Your task to perform on an android device: toggle notifications settings in the gmail app Image 0: 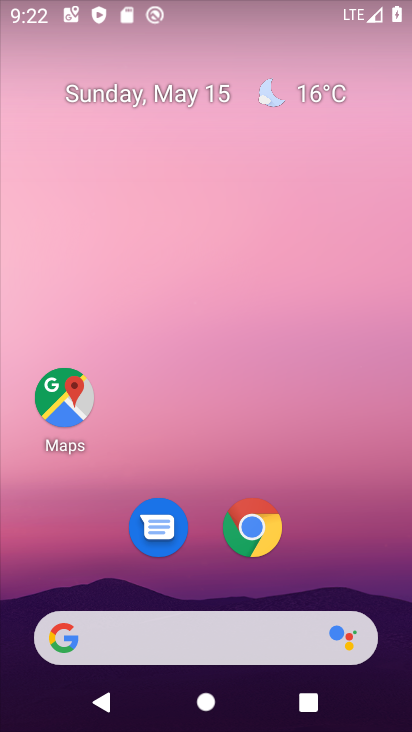
Step 0: drag from (364, 592) to (351, 17)
Your task to perform on an android device: toggle notifications settings in the gmail app Image 1: 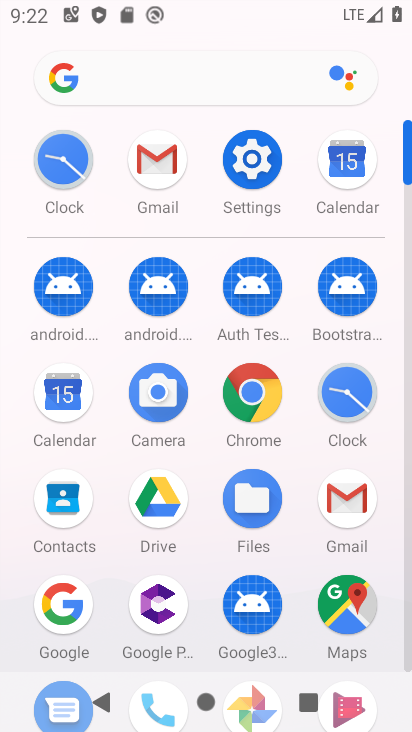
Step 1: click (174, 175)
Your task to perform on an android device: toggle notifications settings in the gmail app Image 2: 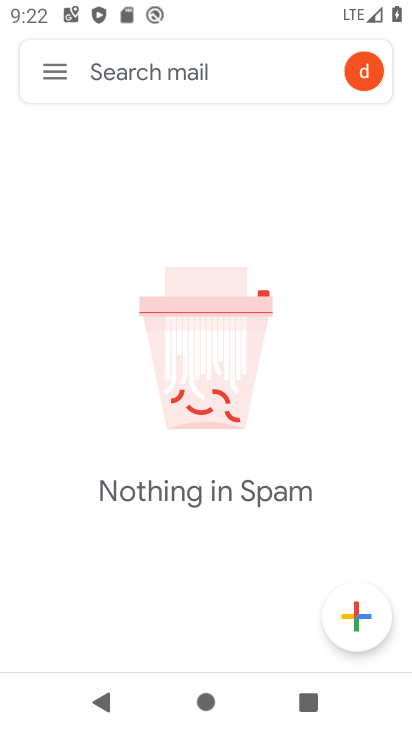
Step 2: click (51, 75)
Your task to perform on an android device: toggle notifications settings in the gmail app Image 3: 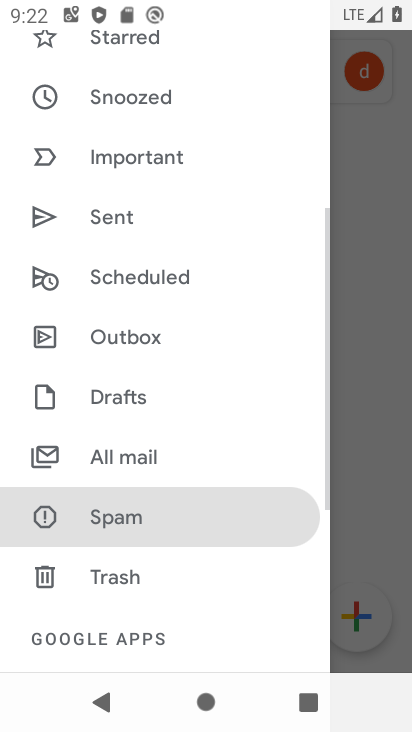
Step 3: drag from (211, 584) to (208, 82)
Your task to perform on an android device: toggle notifications settings in the gmail app Image 4: 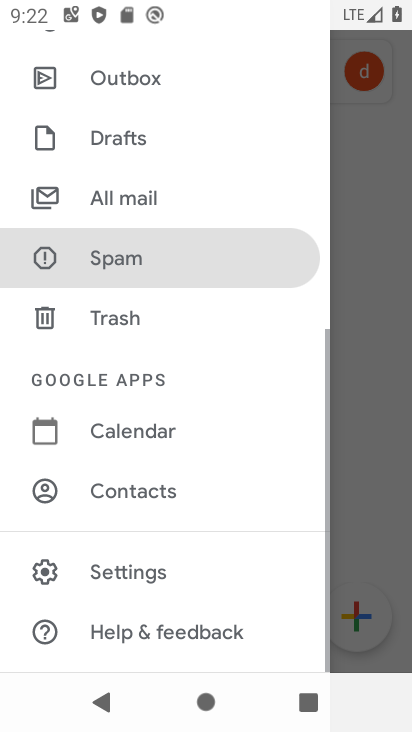
Step 4: click (128, 572)
Your task to perform on an android device: toggle notifications settings in the gmail app Image 5: 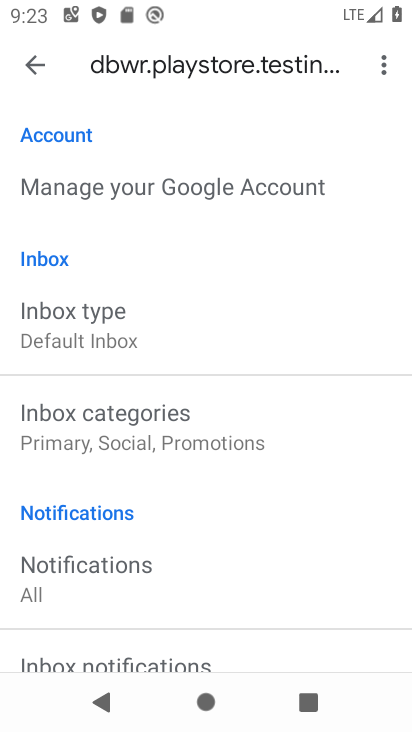
Step 5: click (207, 558)
Your task to perform on an android device: toggle notifications settings in the gmail app Image 6: 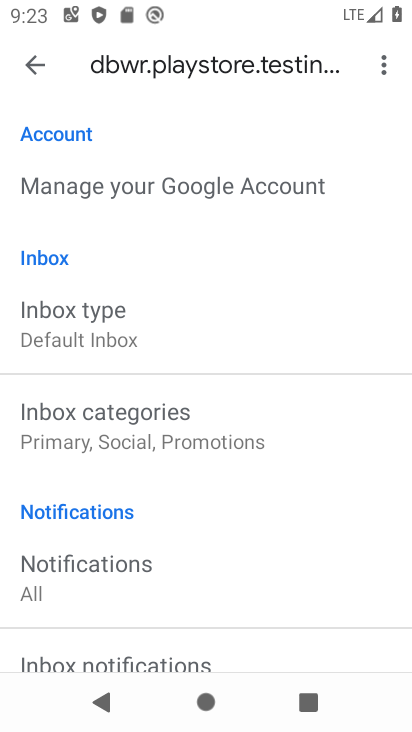
Step 6: click (28, 72)
Your task to perform on an android device: toggle notifications settings in the gmail app Image 7: 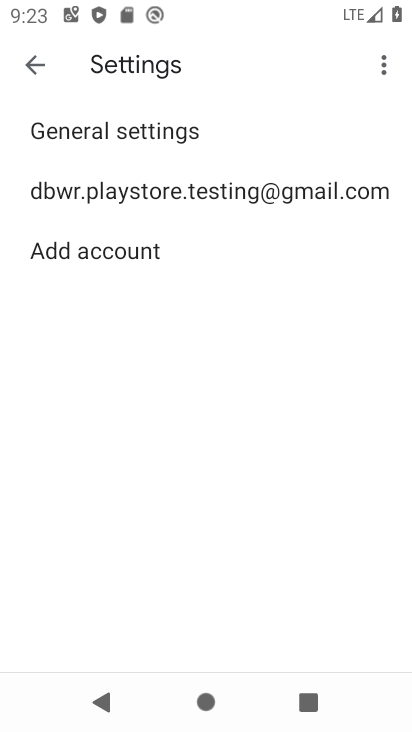
Step 7: click (114, 106)
Your task to perform on an android device: toggle notifications settings in the gmail app Image 8: 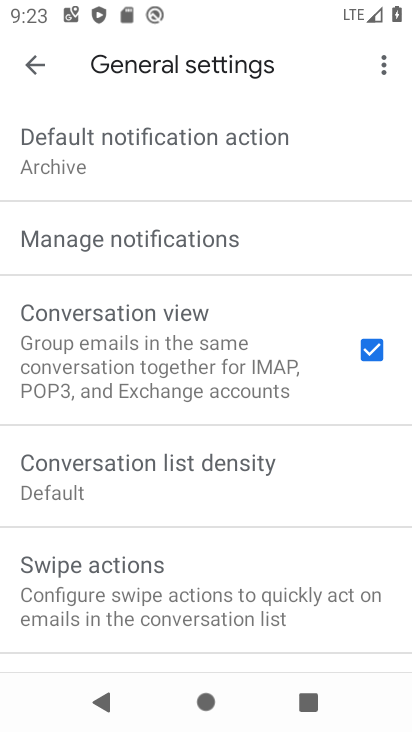
Step 8: click (98, 251)
Your task to perform on an android device: toggle notifications settings in the gmail app Image 9: 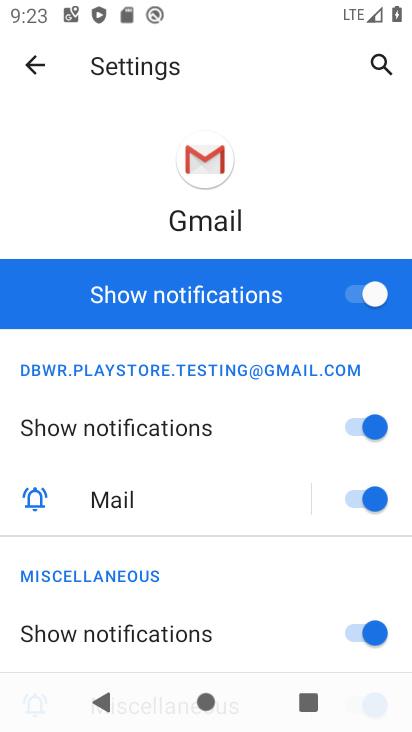
Step 9: click (384, 297)
Your task to perform on an android device: toggle notifications settings in the gmail app Image 10: 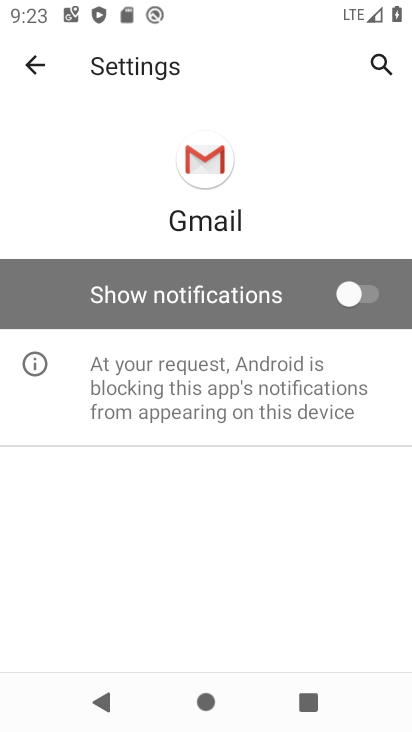
Step 10: task complete